Your task to perform on an android device: toggle airplane mode Image 0: 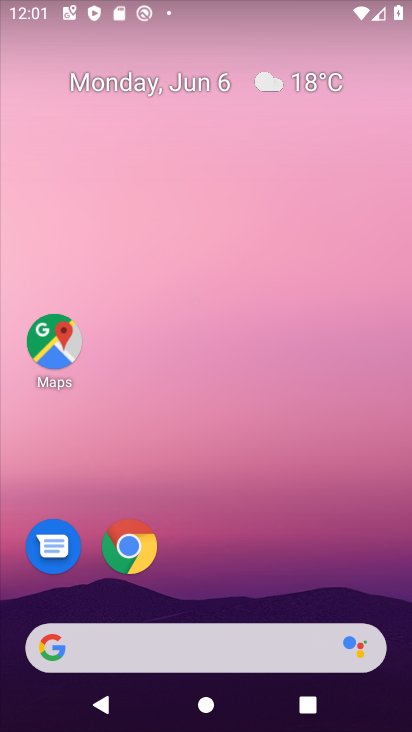
Step 0: drag from (288, 4) to (224, 282)
Your task to perform on an android device: toggle airplane mode Image 1: 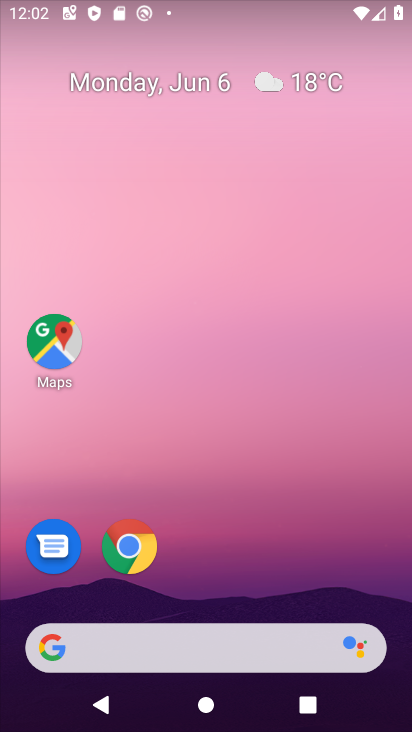
Step 1: drag from (342, 2) to (326, 672)
Your task to perform on an android device: toggle airplane mode Image 2: 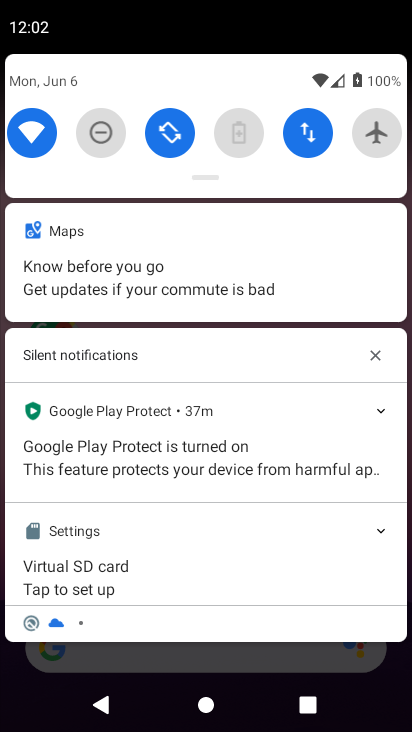
Step 2: click (372, 134)
Your task to perform on an android device: toggle airplane mode Image 3: 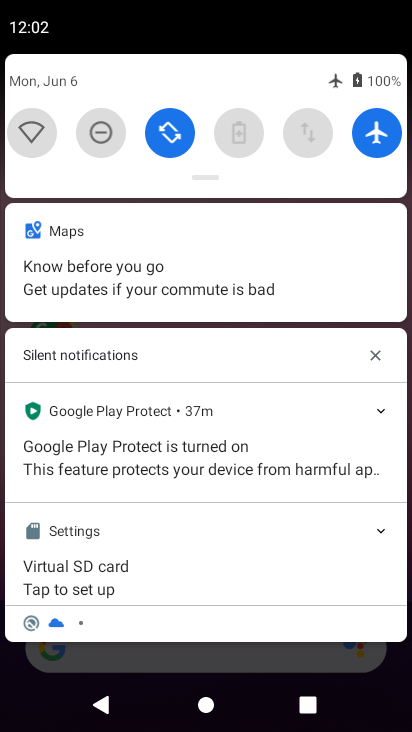
Step 3: task complete